Your task to perform on an android device: uninstall "McDonald's" Image 0: 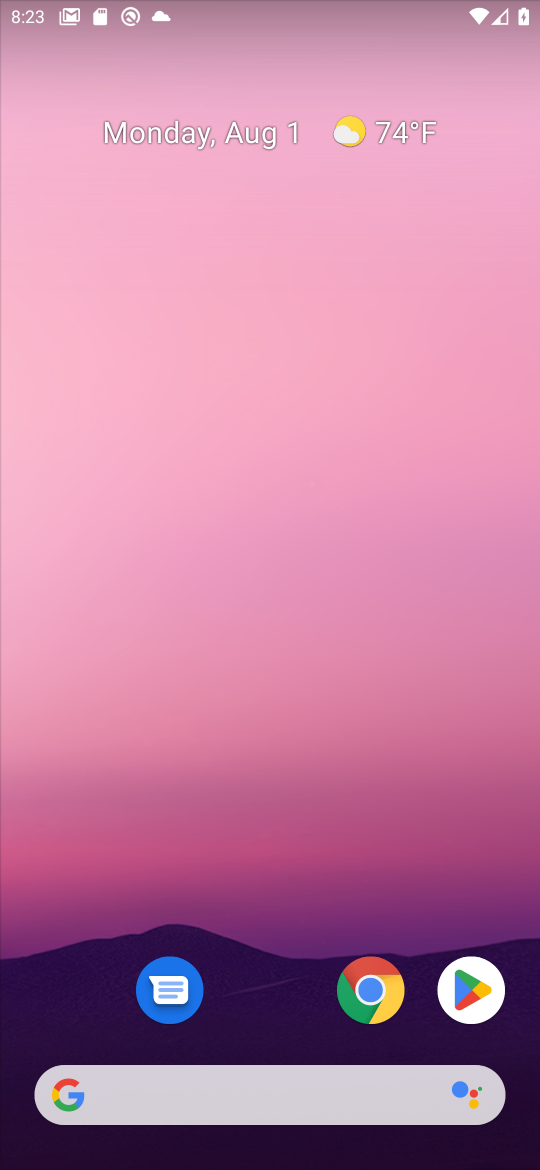
Step 0: press home button
Your task to perform on an android device: uninstall "McDonald's" Image 1: 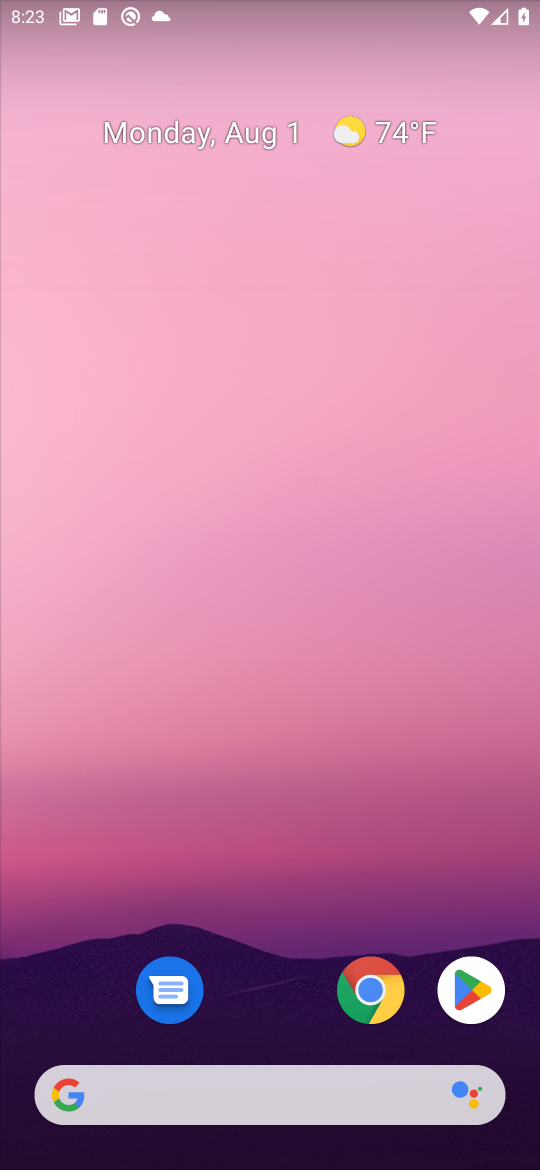
Step 1: click (469, 994)
Your task to perform on an android device: uninstall "McDonald's" Image 2: 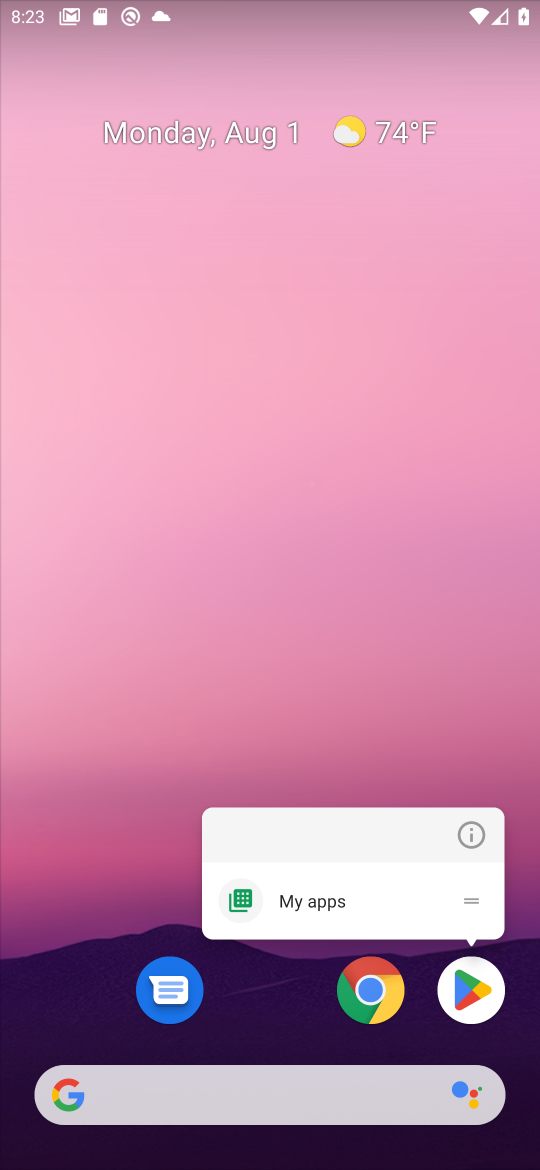
Step 2: click (466, 993)
Your task to perform on an android device: uninstall "McDonald's" Image 3: 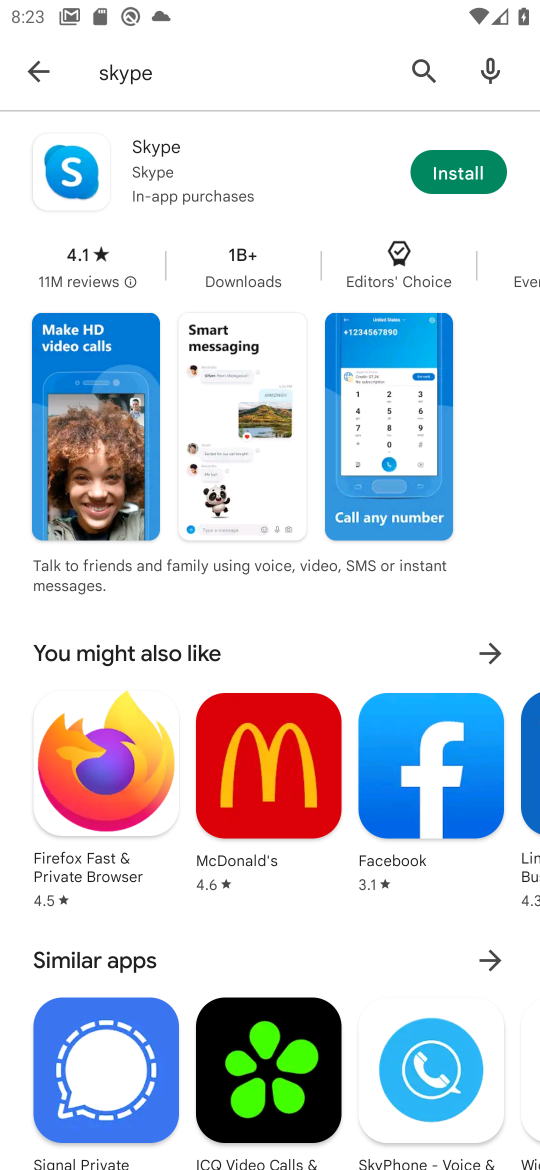
Step 3: click (421, 69)
Your task to perform on an android device: uninstall "McDonald's" Image 4: 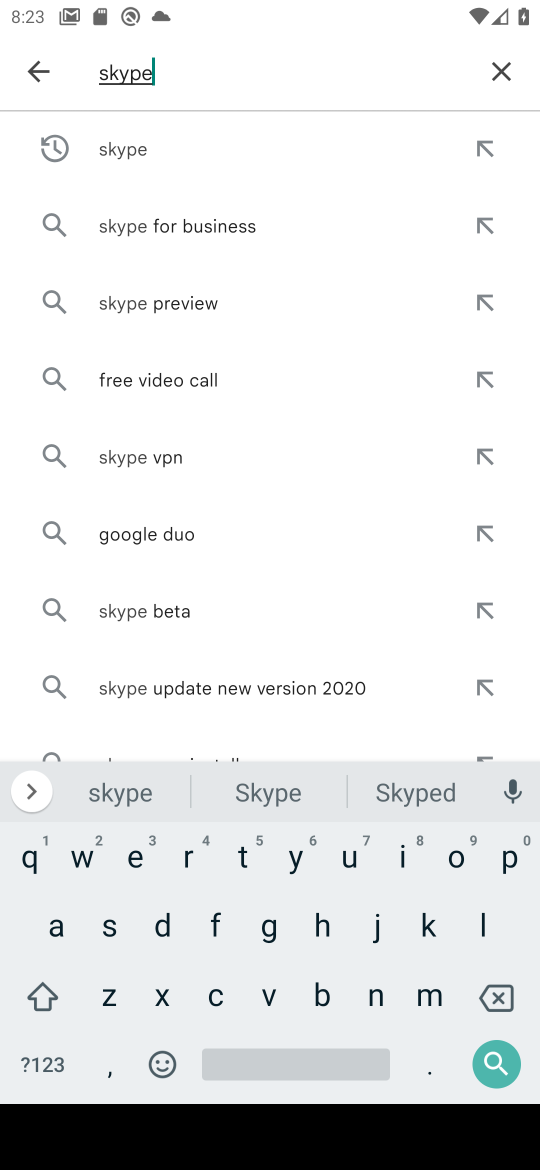
Step 4: click (502, 72)
Your task to perform on an android device: uninstall "McDonald's" Image 5: 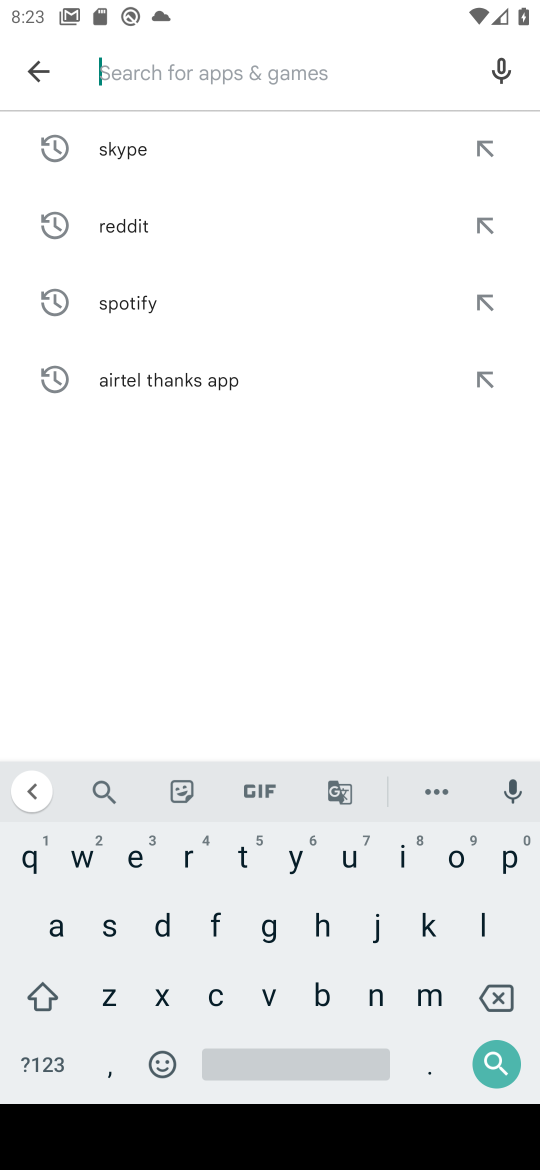
Step 5: click (421, 995)
Your task to perform on an android device: uninstall "McDonald's" Image 6: 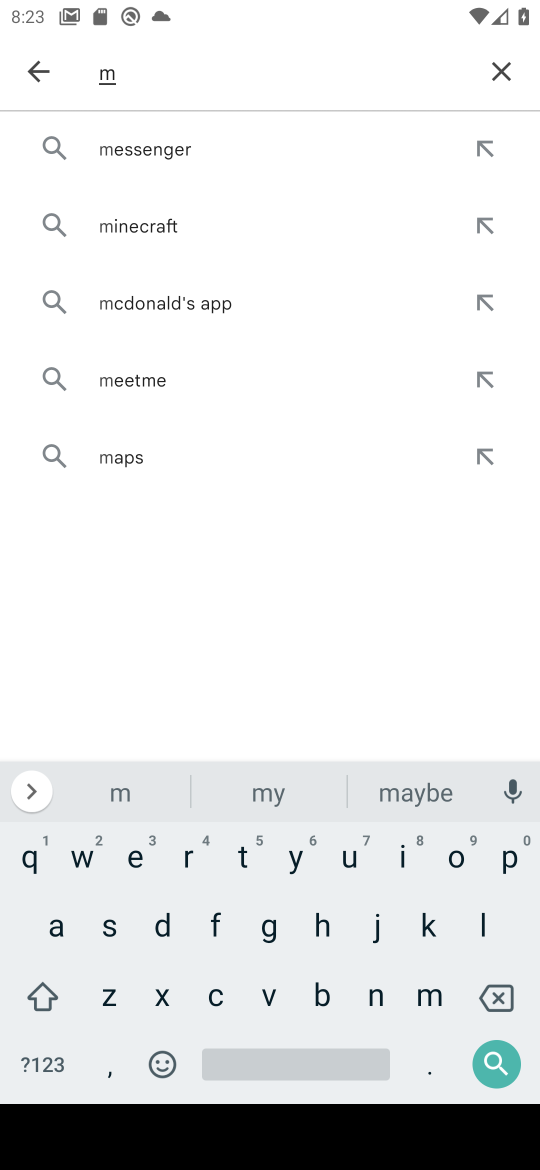
Step 6: click (211, 1004)
Your task to perform on an android device: uninstall "McDonald's" Image 7: 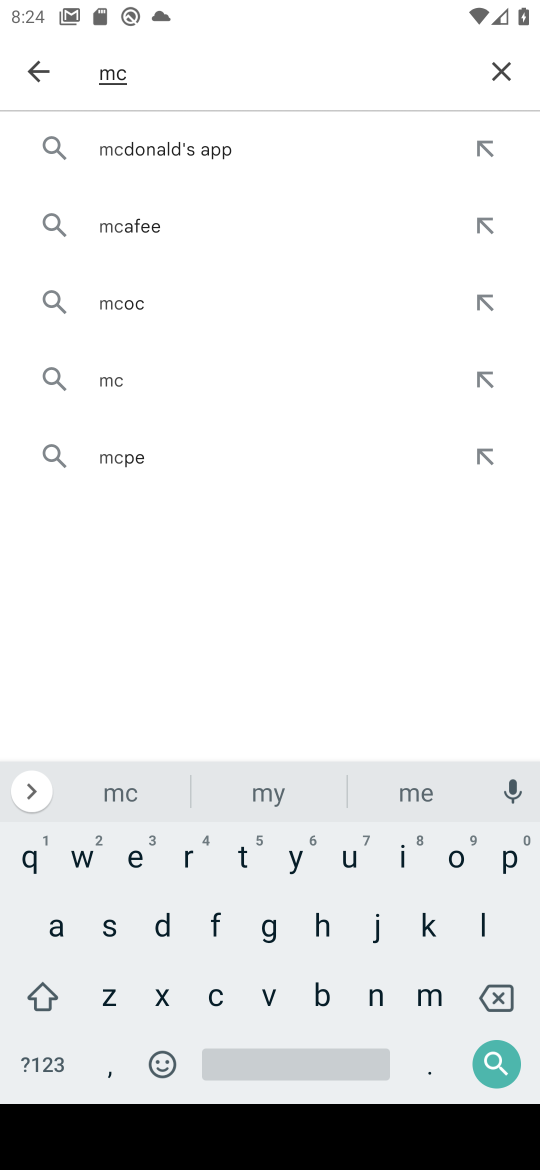
Step 7: click (220, 144)
Your task to perform on an android device: uninstall "McDonald's" Image 8: 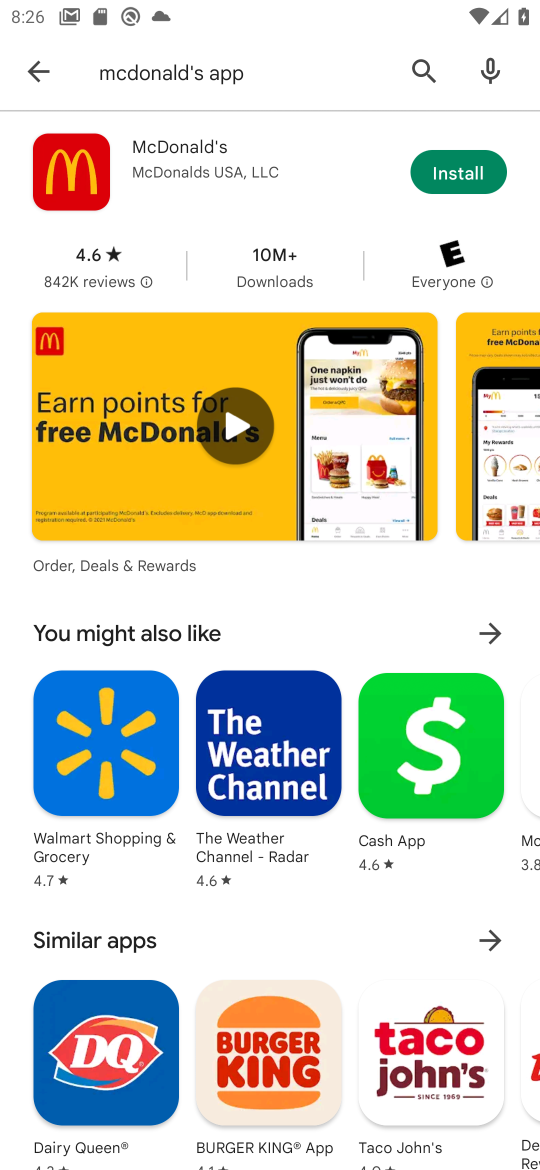
Step 8: task complete